Your task to perform on an android device: Open calendar and show me the third week of next month Image 0: 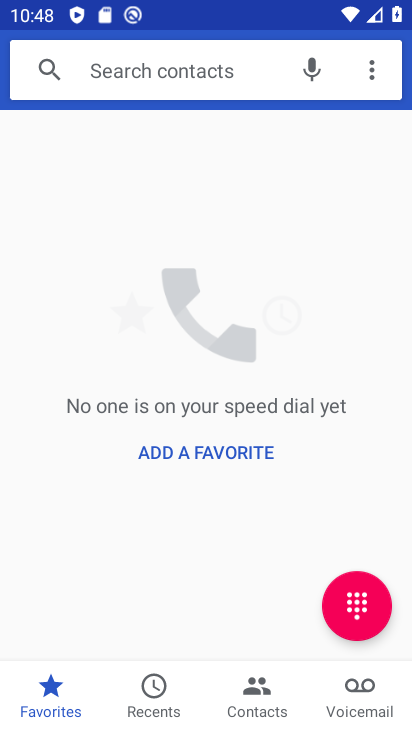
Step 0: press back button
Your task to perform on an android device: Open calendar and show me the third week of next month Image 1: 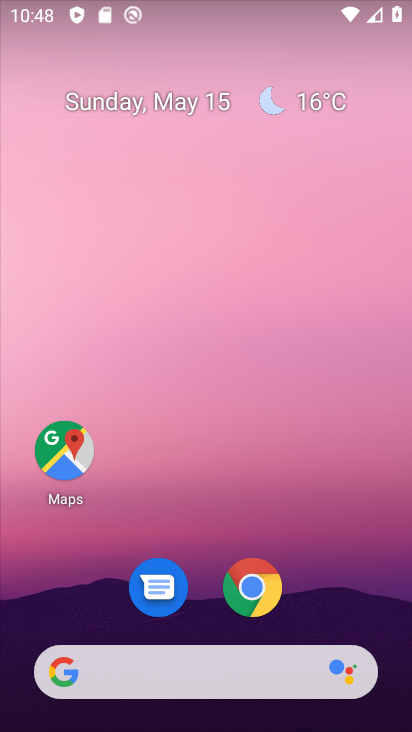
Step 1: drag from (316, 588) to (285, 18)
Your task to perform on an android device: Open calendar and show me the third week of next month Image 2: 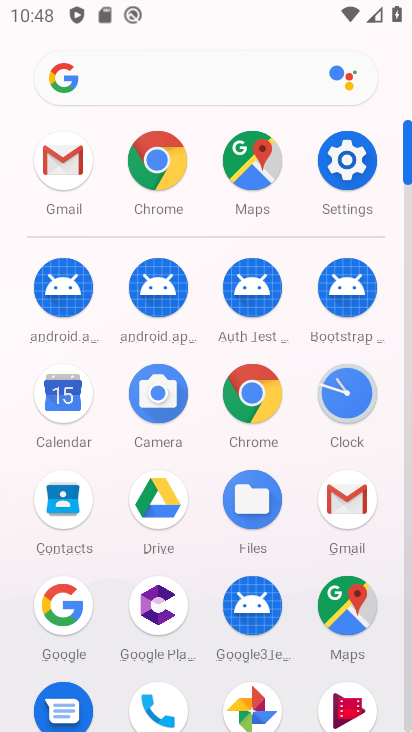
Step 2: drag from (19, 528) to (16, 222)
Your task to perform on an android device: Open calendar and show me the third week of next month Image 3: 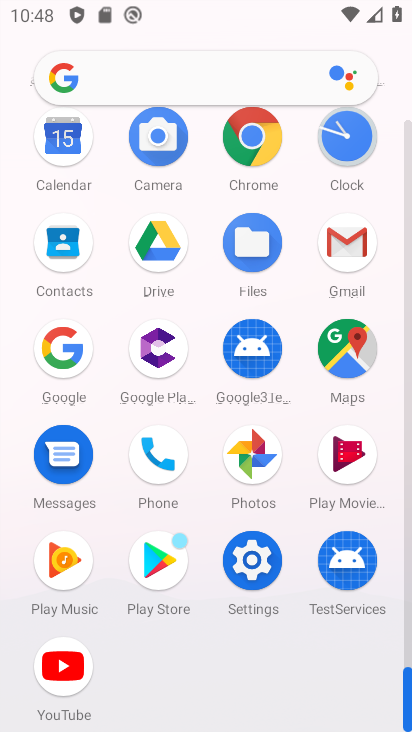
Step 3: click (70, 132)
Your task to perform on an android device: Open calendar and show me the third week of next month Image 4: 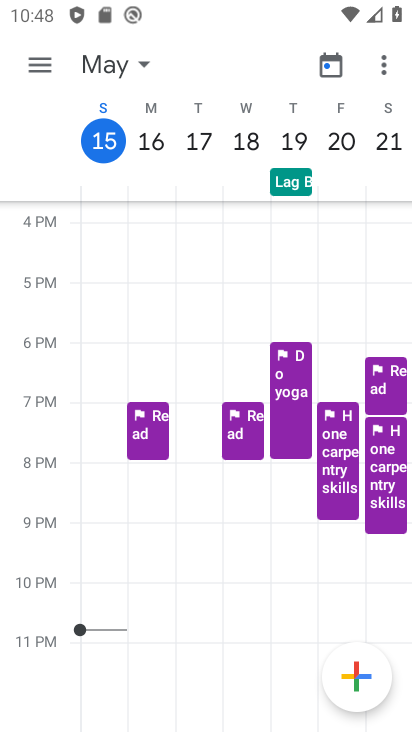
Step 4: click (133, 64)
Your task to perform on an android device: Open calendar and show me the third week of next month Image 5: 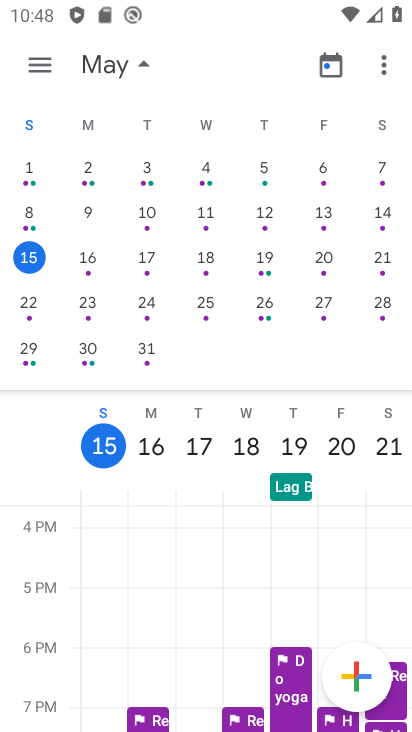
Step 5: drag from (384, 265) to (0, 234)
Your task to perform on an android device: Open calendar and show me the third week of next month Image 6: 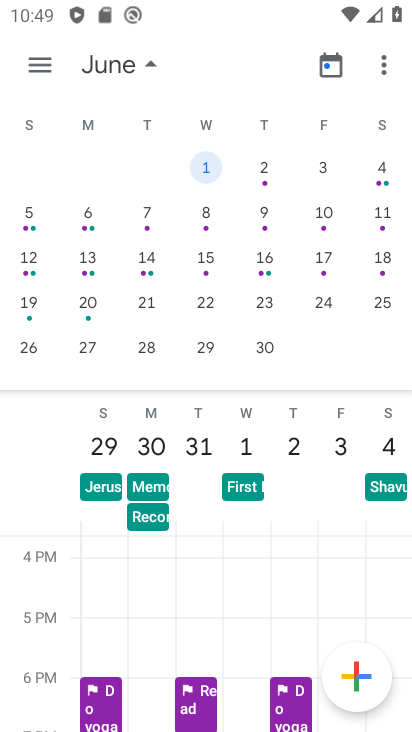
Step 6: click (19, 260)
Your task to perform on an android device: Open calendar and show me the third week of next month Image 7: 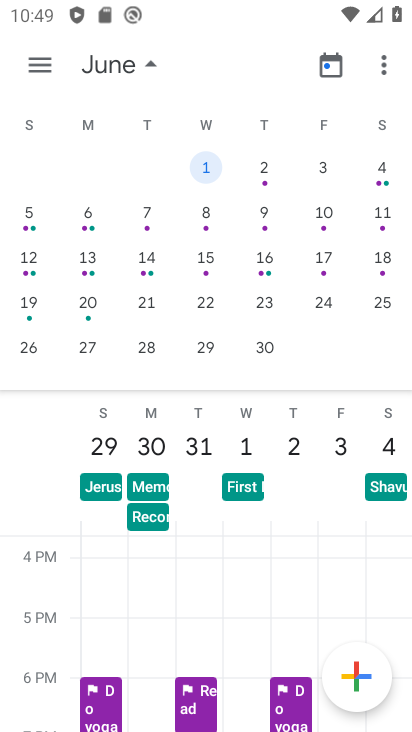
Step 7: click (29, 256)
Your task to perform on an android device: Open calendar and show me the third week of next month Image 8: 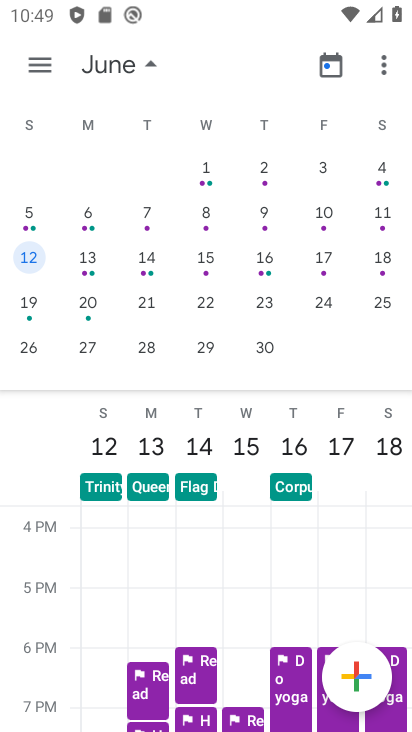
Step 8: click (39, 60)
Your task to perform on an android device: Open calendar and show me the third week of next month Image 9: 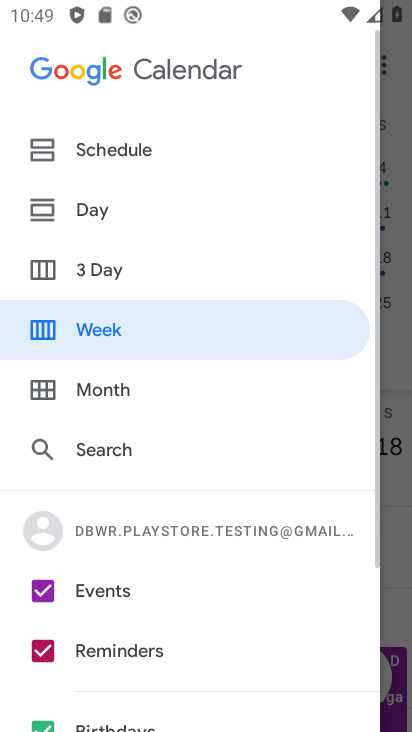
Step 9: click (127, 333)
Your task to perform on an android device: Open calendar and show me the third week of next month Image 10: 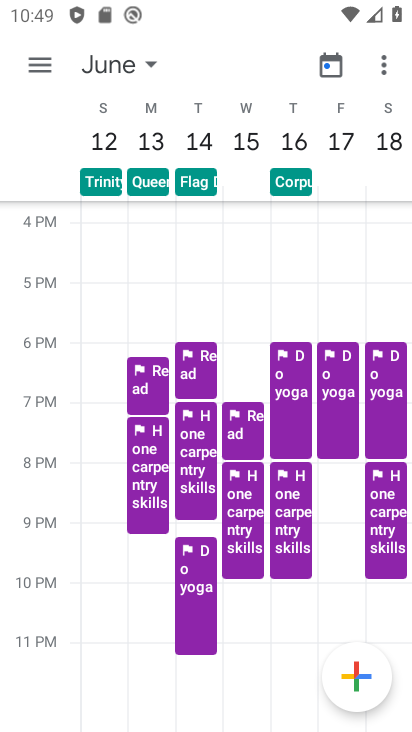
Step 10: task complete